Your task to perform on an android device: delete browsing data in the chrome app Image 0: 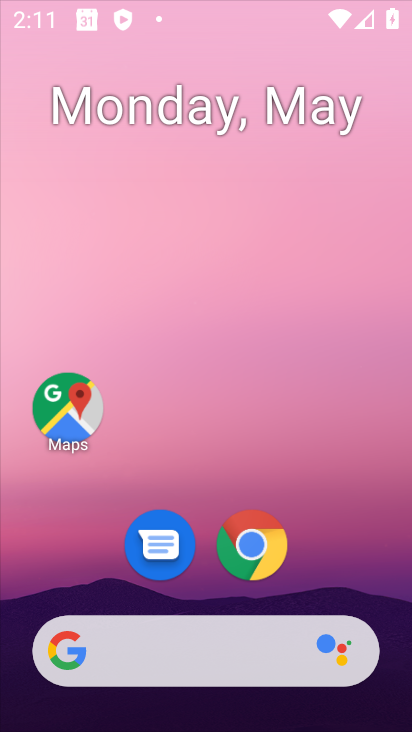
Step 0: press home button
Your task to perform on an android device: delete browsing data in the chrome app Image 1: 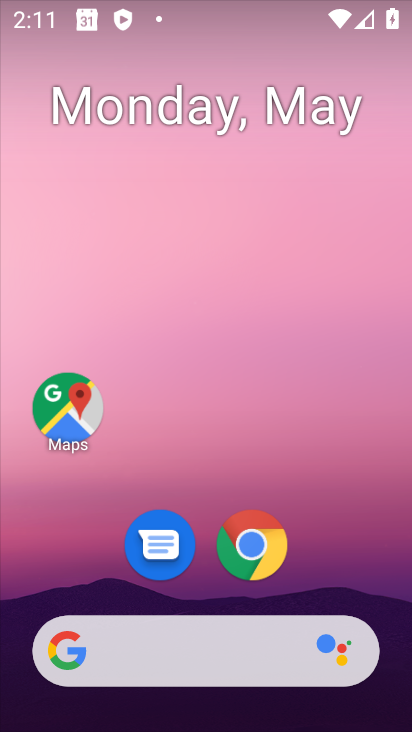
Step 1: click (246, 563)
Your task to perform on an android device: delete browsing data in the chrome app Image 2: 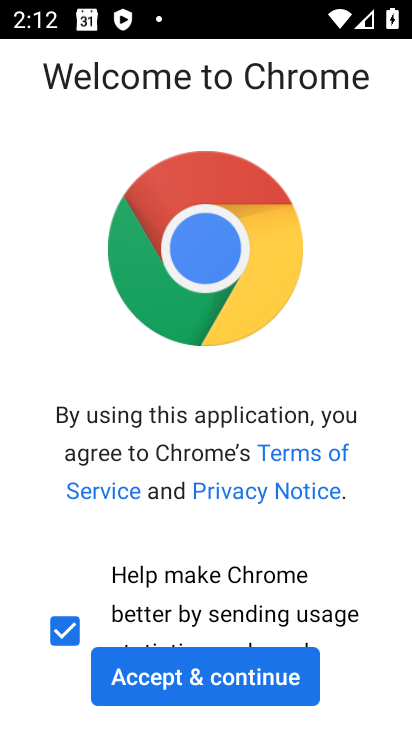
Step 2: click (169, 670)
Your task to perform on an android device: delete browsing data in the chrome app Image 3: 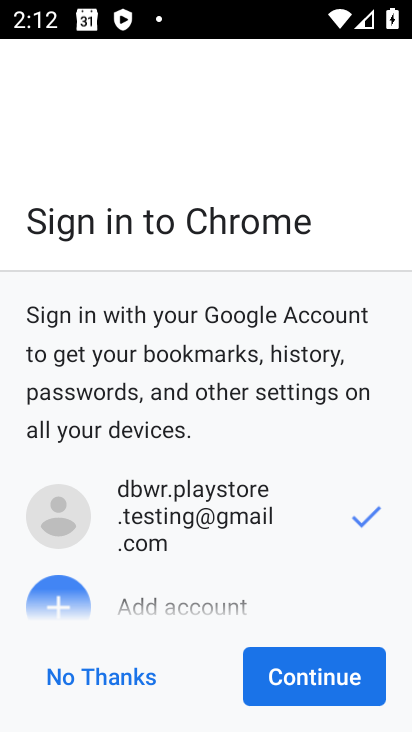
Step 3: click (290, 659)
Your task to perform on an android device: delete browsing data in the chrome app Image 4: 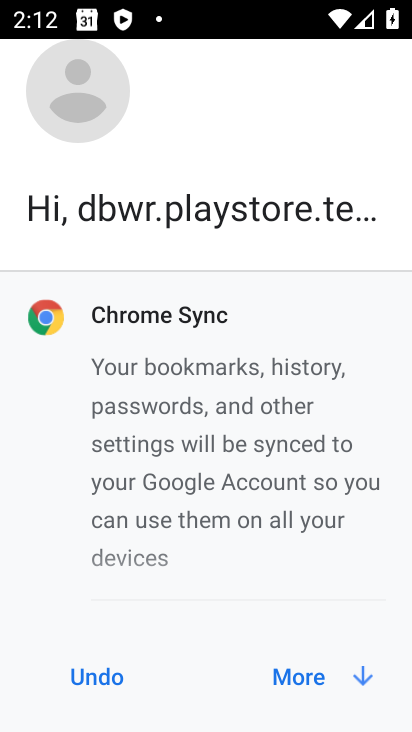
Step 4: click (312, 672)
Your task to perform on an android device: delete browsing data in the chrome app Image 5: 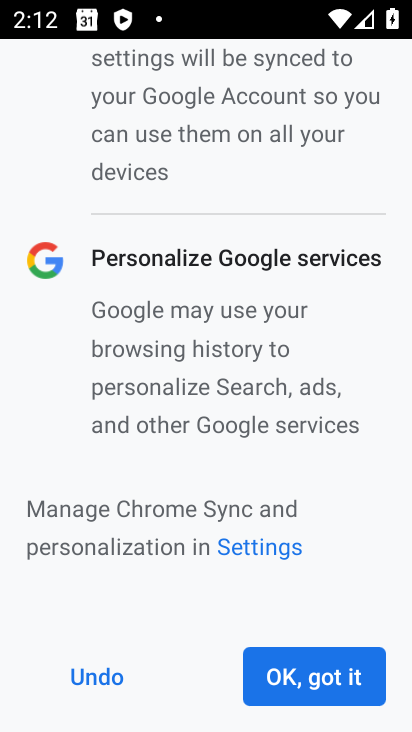
Step 5: click (312, 672)
Your task to perform on an android device: delete browsing data in the chrome app Image 6: 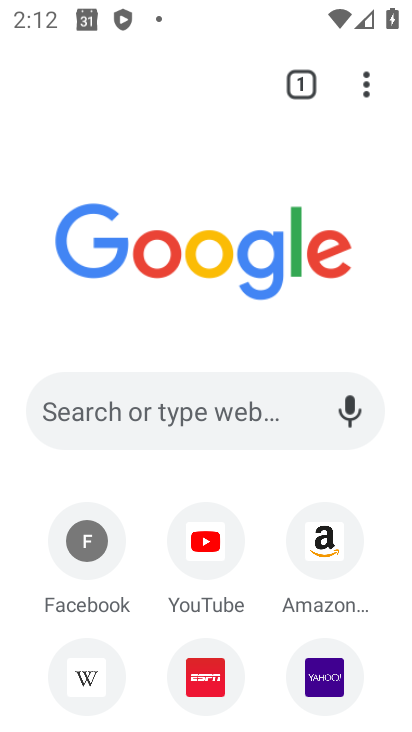
Step 6: task complete